Your task to perform on an android device: toggle sleep mode Image 0: 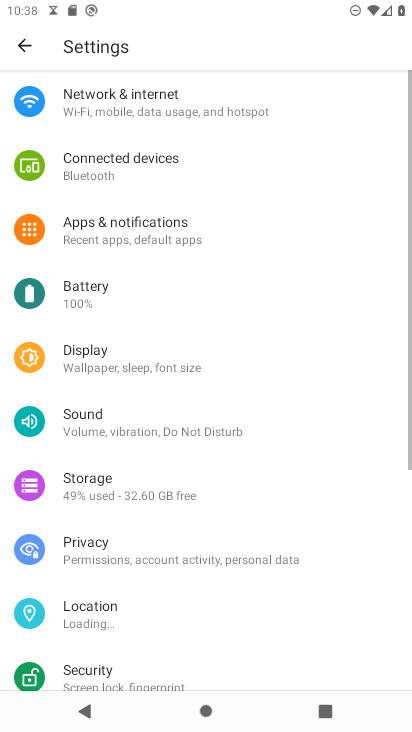
Step 0: press home button
Your task to perform on an android device: toggle sleep mode Image 1: 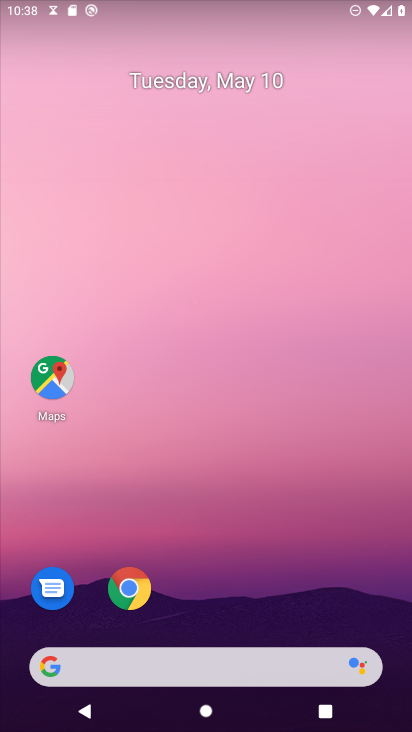
Step 1: drag from (237, 486) to (238, 202)
Your task to perform on an android device: toggle sleep mode Image 2: 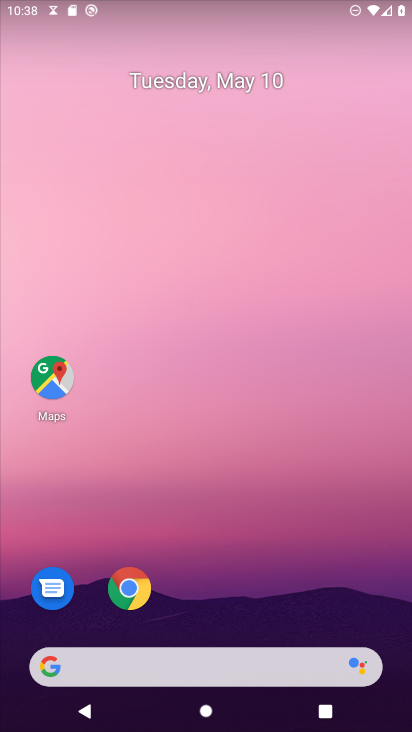
Step 2: drag from (231, 628) to (213, 163)
Your task to perform on an android device: toggle sleep mode Image 3: 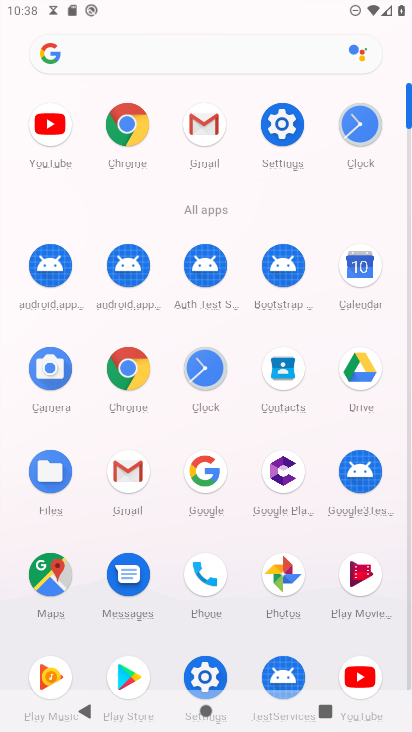
Step 3: click (286, 132)
Your task to perform on an android device: toggle sleep mode Image 4: 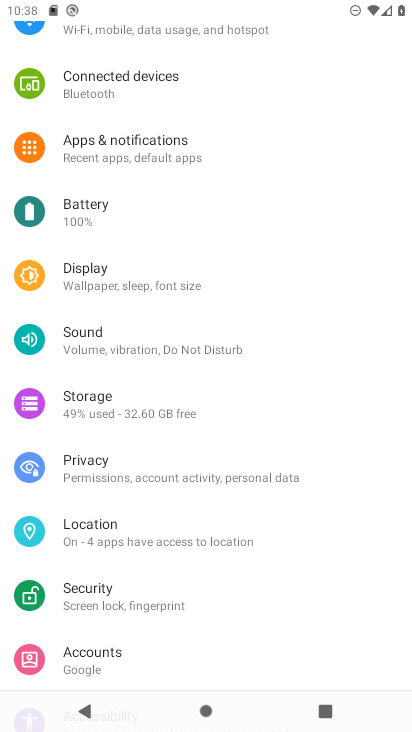
Step 4: click (138, 265)
Your task to perform on an android device: toggle sleep mode Image 5: 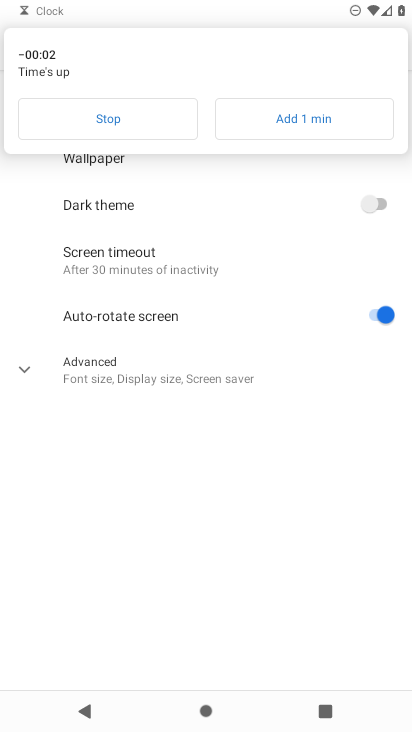
Step 5: click (101, 116)
Your task to perform on an android device: toggle sleep mode Image 6: 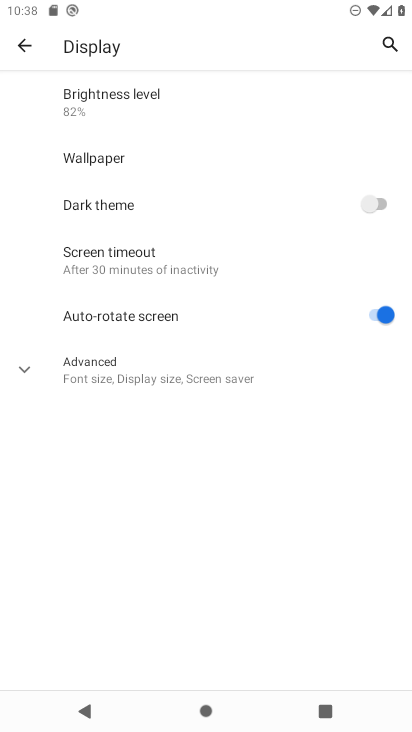
Step 6: click (125, 269)
Your task to perform on an android device: toggle sleep mode Image 7: 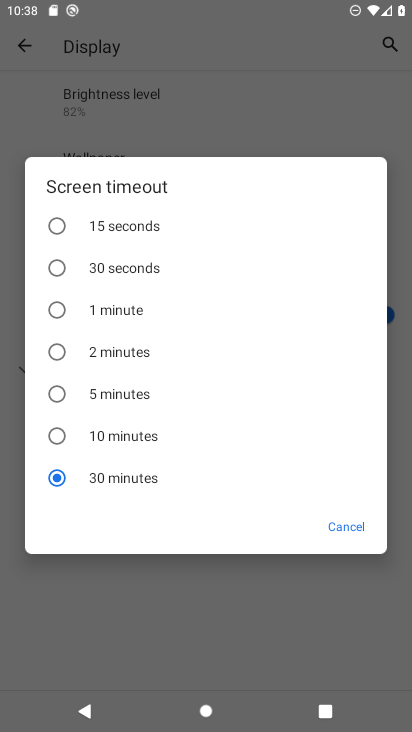
Step 7: click (101, 345)
Your task to perform on an android device: toggle sleep mode Image 8: 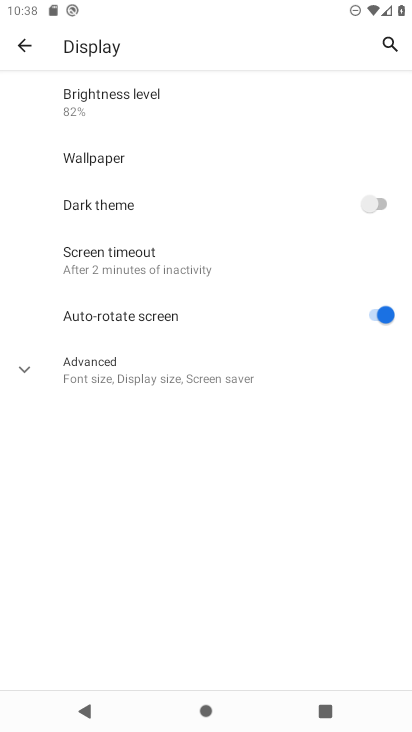
Step 8: task complete